Your task to perform on an android device: Open Google Maps Image 0: 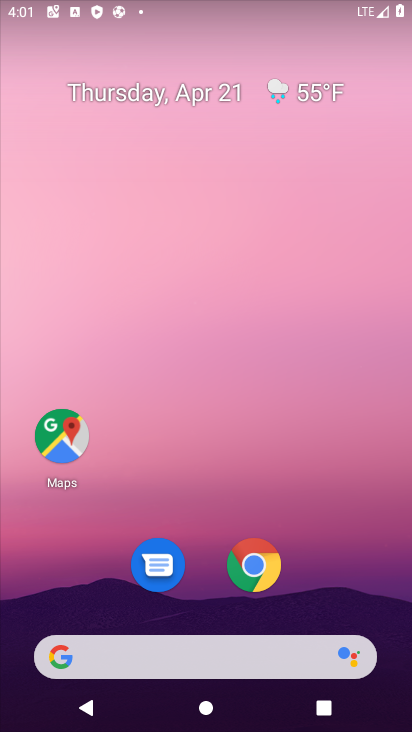
Step 0: click (57, 433)
Your task to perform on an android device: Open Google Maps Image 1: 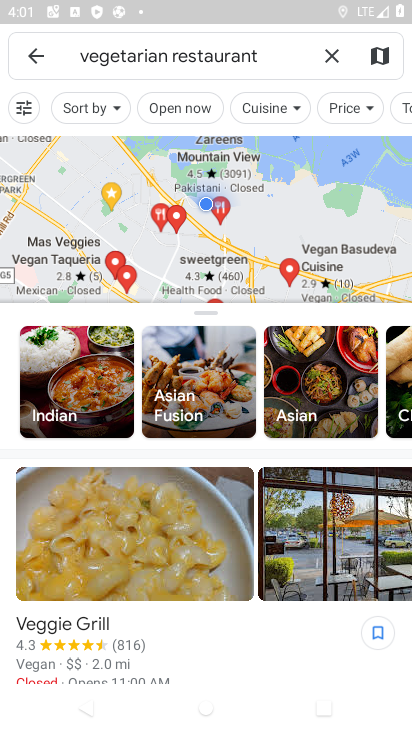
Step 1: click (332, 55)
Your task to perform on an android device: Open Google Maps Image 2: 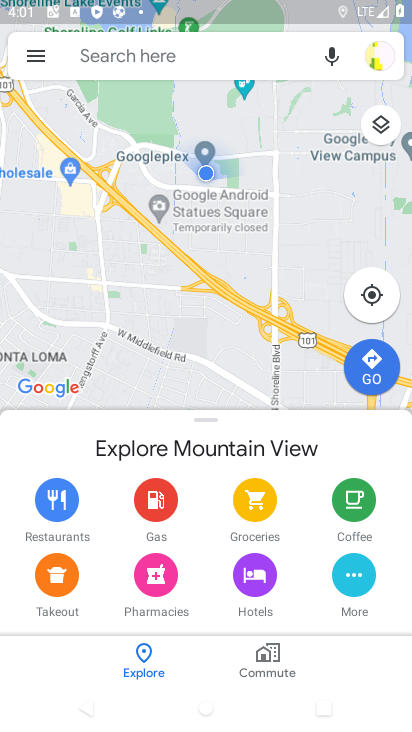
Step 2: task complete